Your task to perform on an android device: Add "asus rog" to the cart on target Image 0: 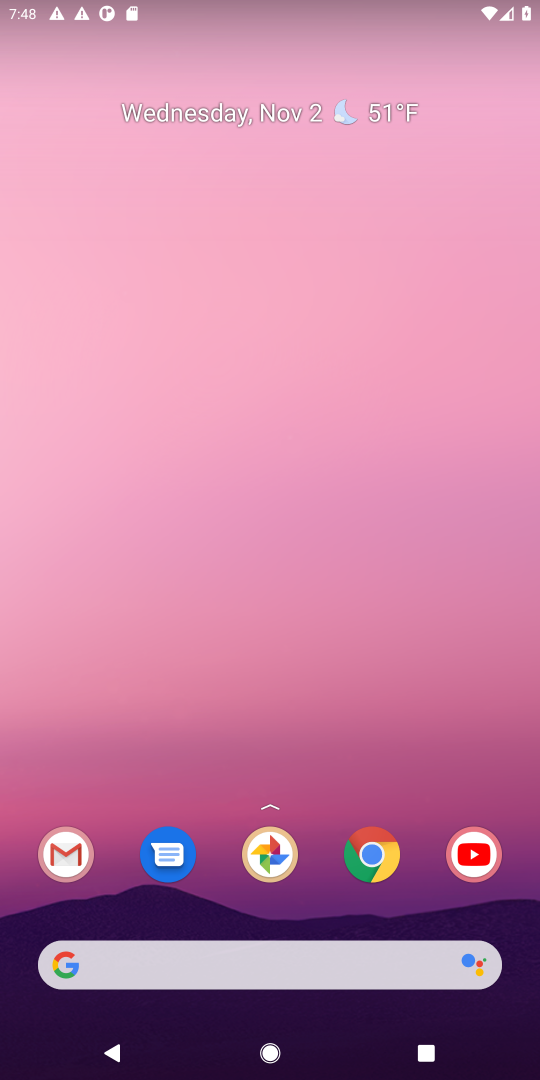
Step 0: click (377, 854)
Your task to perform on an android device: Add "asus rog" to the cart on target Image 1: 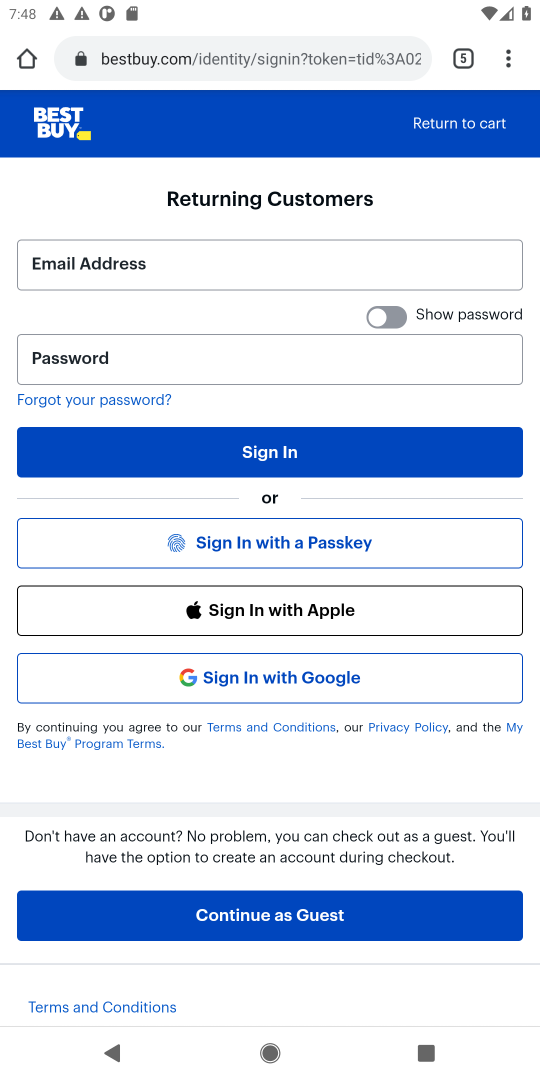
Step 1: click (461, 61)
Your task to perform on an android device: Add "asus rog" to the cart on target Image 2: 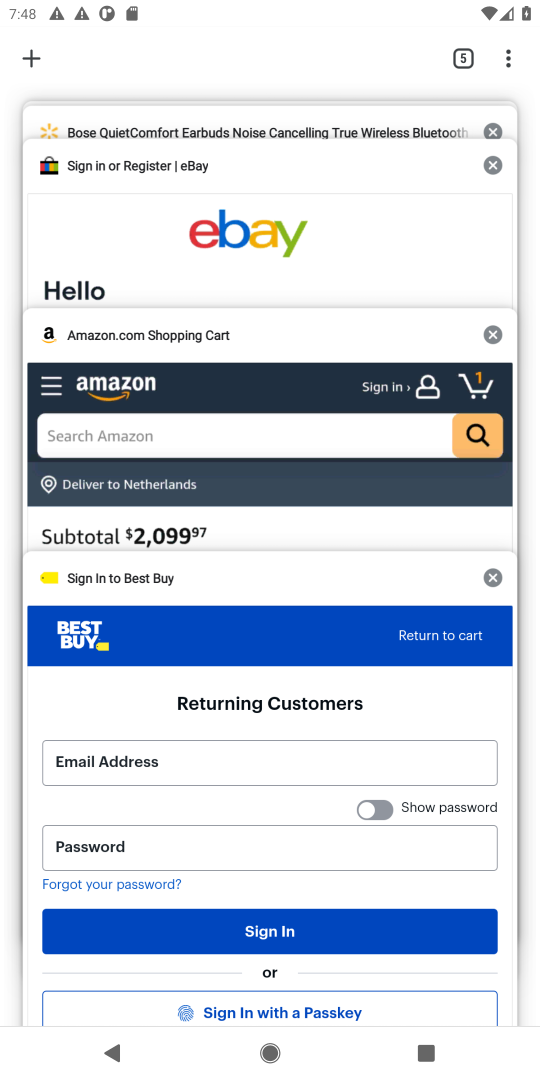
Step 2: click (30, 58)
Your task to perform on an android device: Add "asus rog" to the cart on target Image 3: 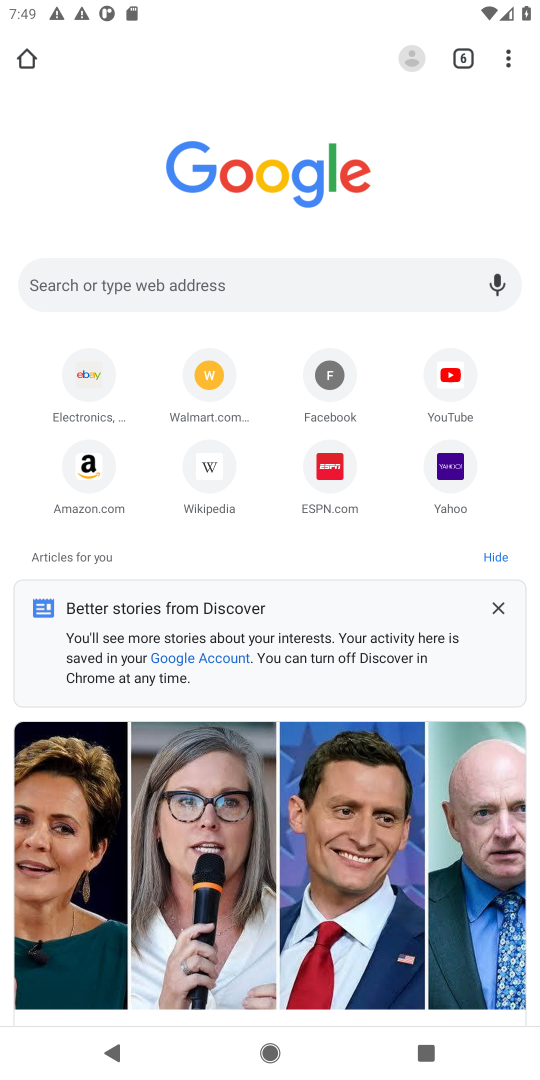
Step 3: type "target"
Your task to perform on an android device: Add "asus rog" to the cart on target Image 4: 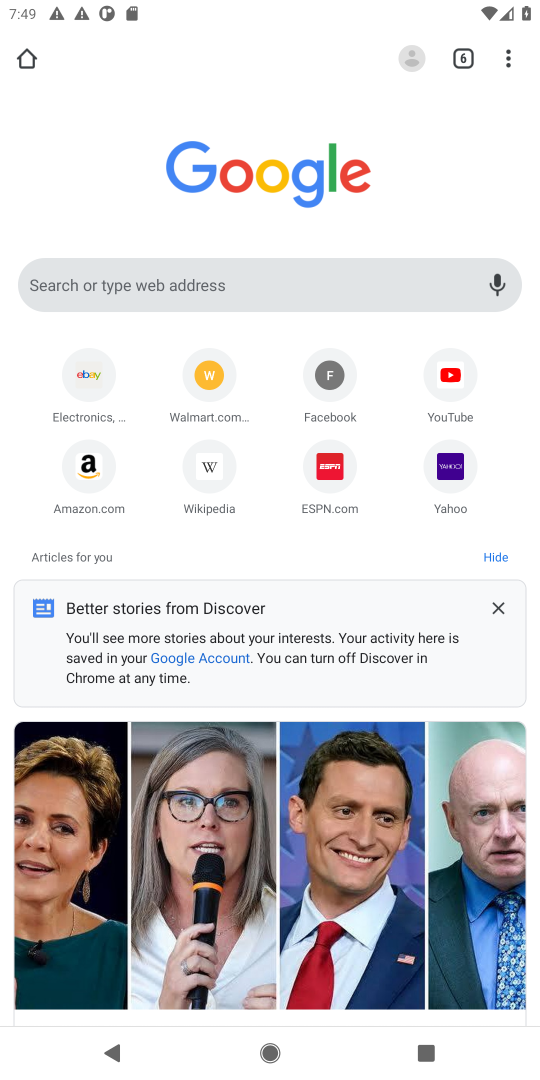
Step 4: click (105, 272)
Your task to perform on an android device: Add "asus rog" to the cart on target Image 5: 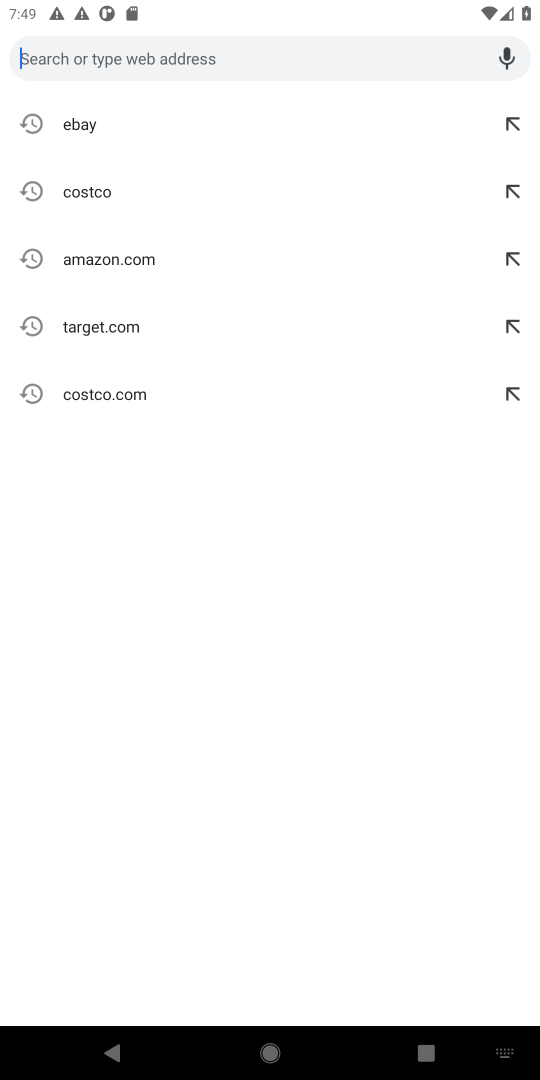
Step 5: click (91, 334)
Your task to perform on an android device: Add "asus rog" to the cart on target Image 6: 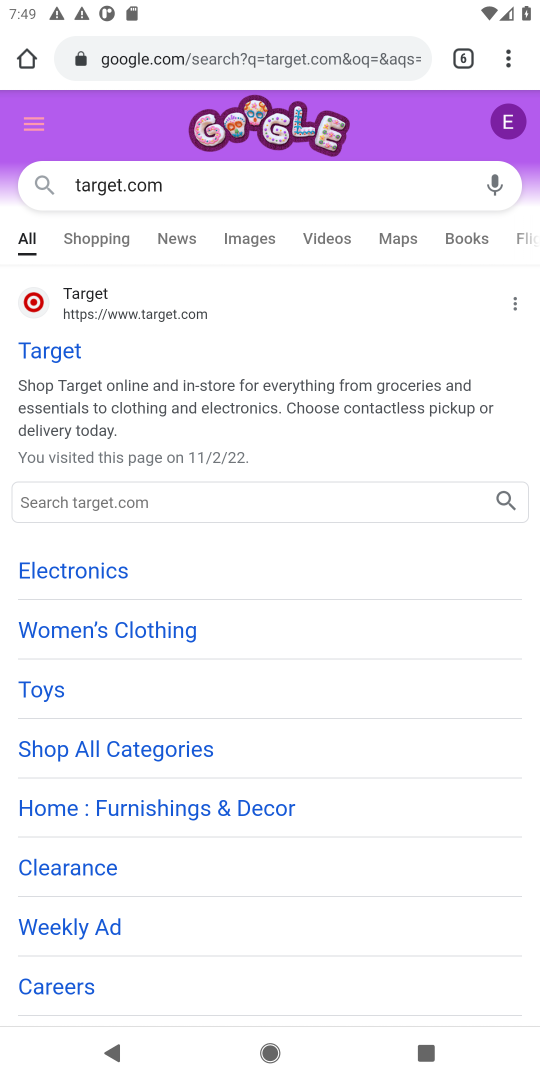
Step 6: click (72, 496)
Your task to perform on an android device: Add "asus rog" to the cart on target Image 7: 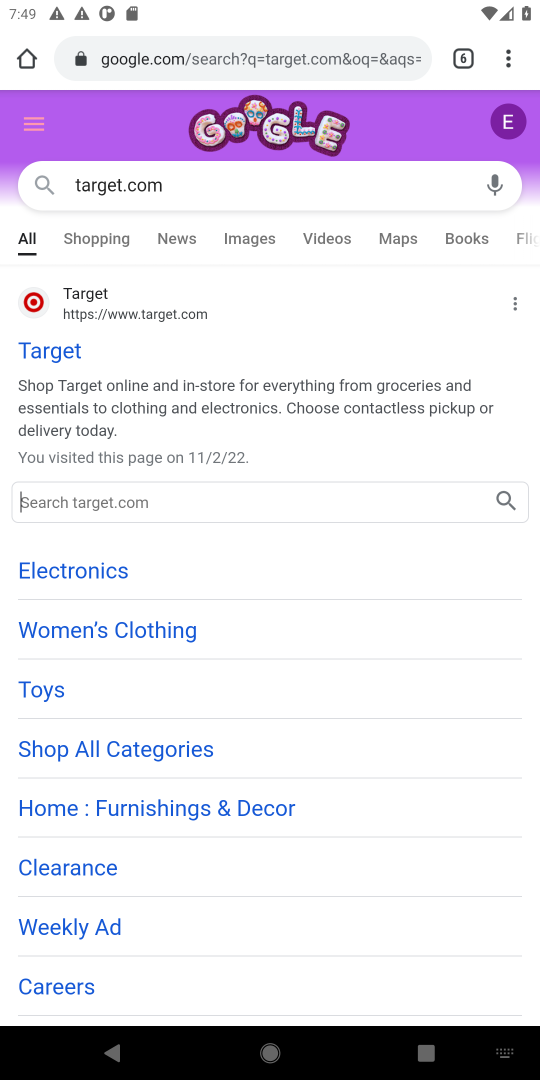
Step 7: type "asus rog"
Your task to perform on an android device: Add "asus rog" to the cart on target Image 8: 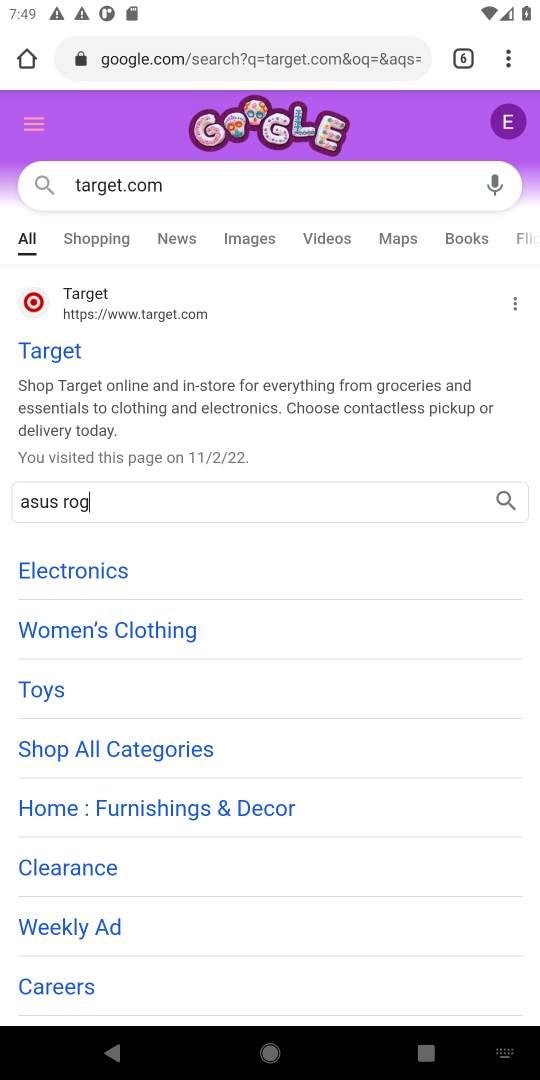
Step 8: click (504, 500)
Your task to perform on an android device: Add "asus rog" to the cart on target Image 9: 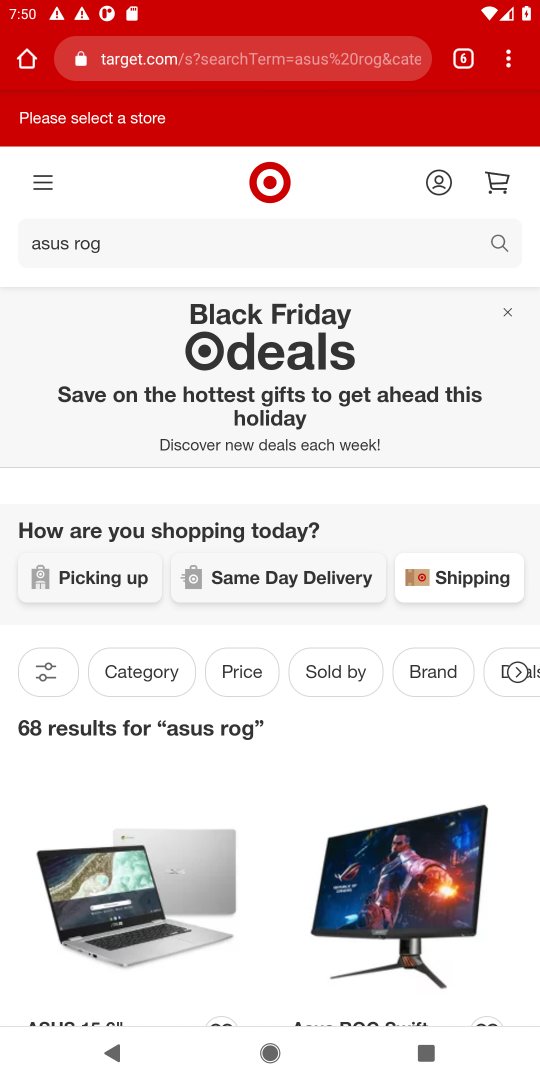
Step 9: drag from (237, 830) to (350, 202)
Your task to perform on an android device: Add "asus rog" to the cart on target Image 10: 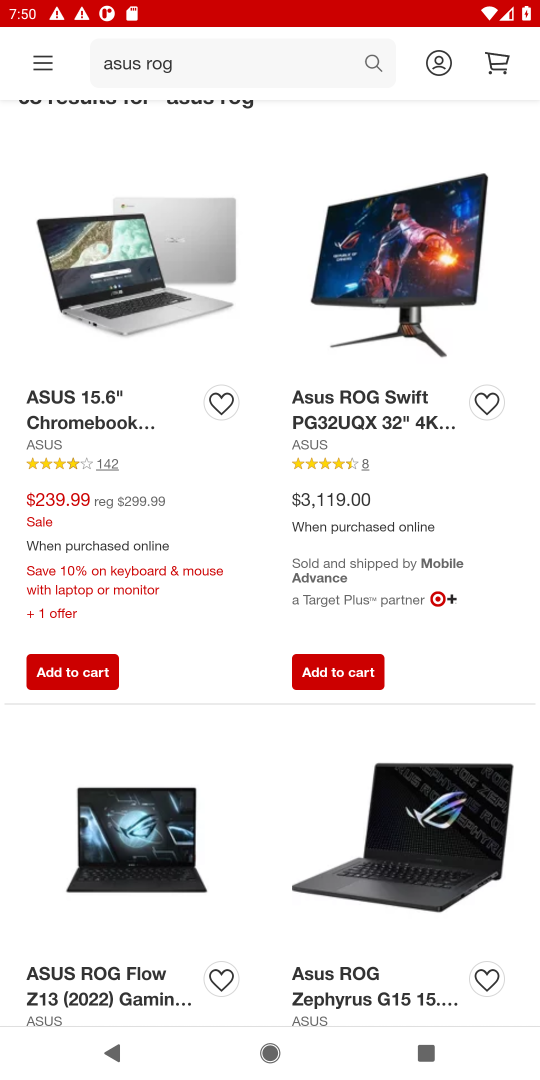
Step 10: click (68, 675)
Your task to perform on an android device: Add "asus rog" to the cart on target Image 11: 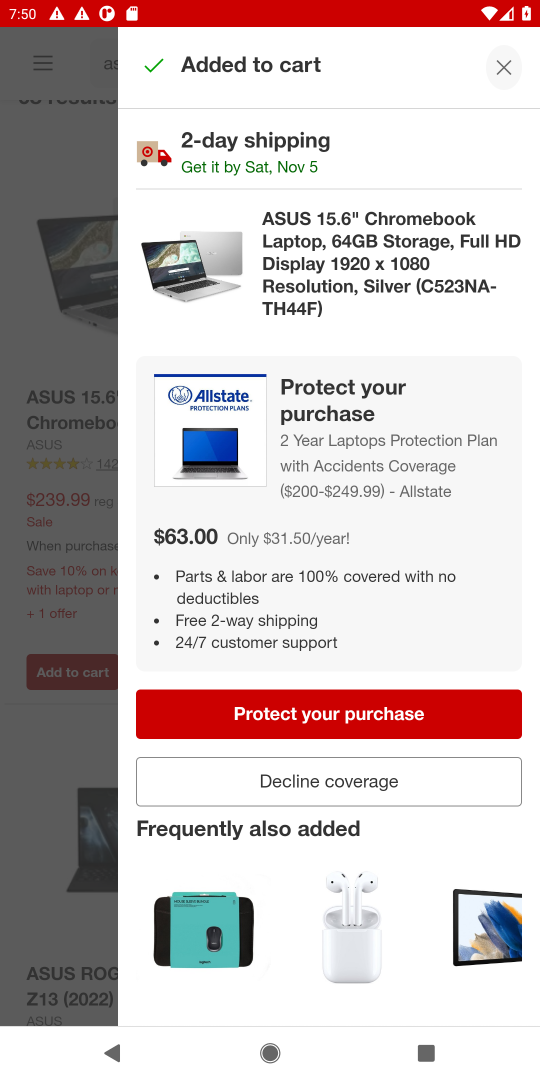
Step 11: click (359, 774)
Your task to perform on an android device: Add "asus rog" to the cart on target Image 12: 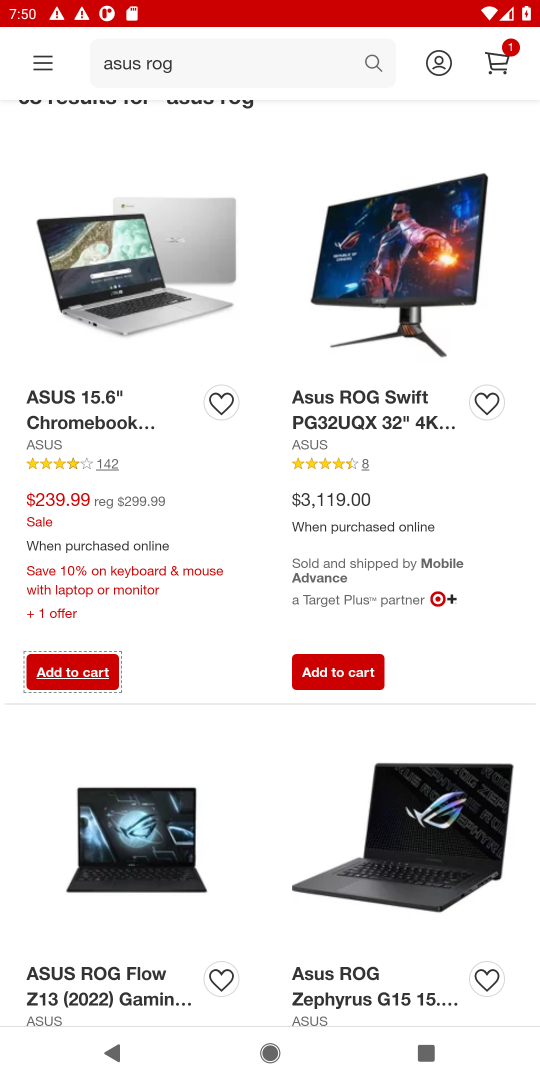
Step 12: task complete